Your task to perform on an android device: find photos in the google photos app Image 0: 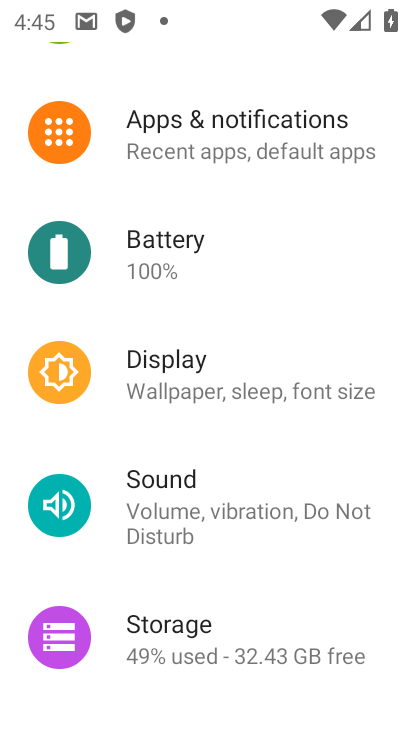
Step 0: press home button
Your task to perform on an android device: find photos in the google photos app Image 1: 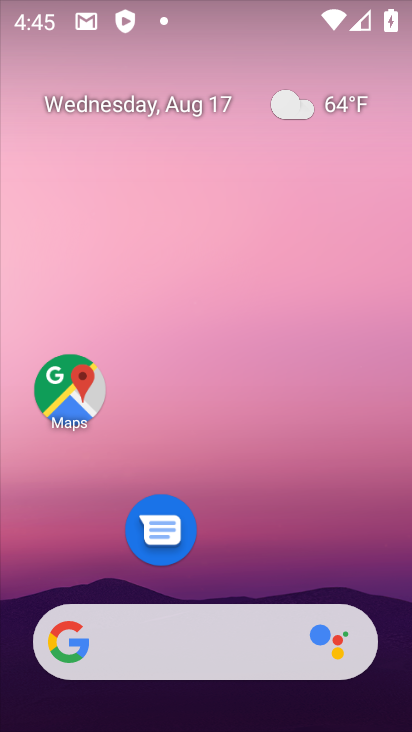
Step 1: drag from (223, 570) to (178, 5)
Your task to perform on an android device: find photos in the google photos app Image 2: 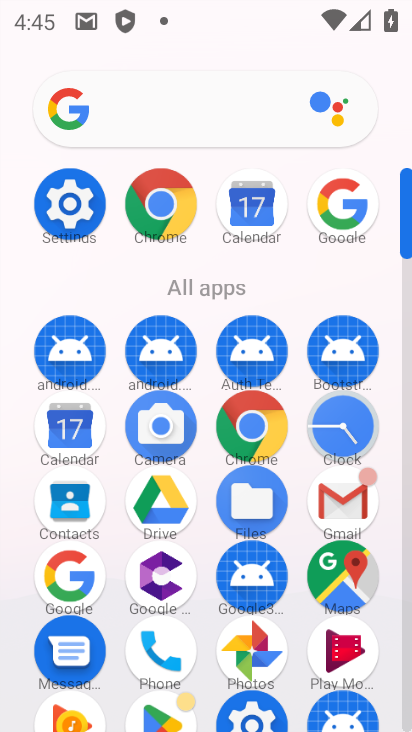
Step 2: click (267, 649)
Your task to perform on an android device: find photos in the google photos app Image 3: 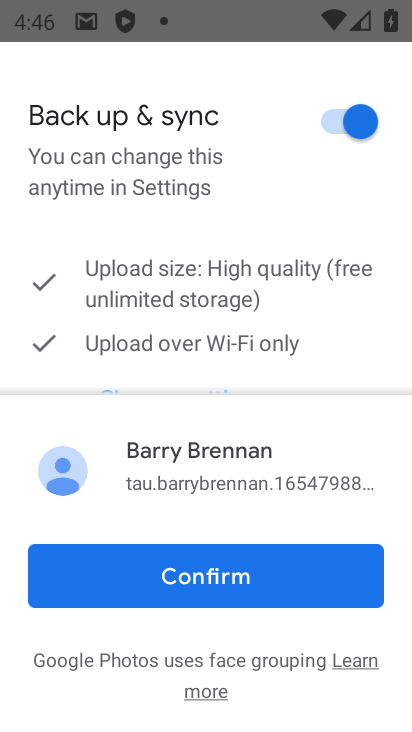
Step 3: click (209, 591)
Your task to perform on an android device: find photos in the google photos app Image 4: 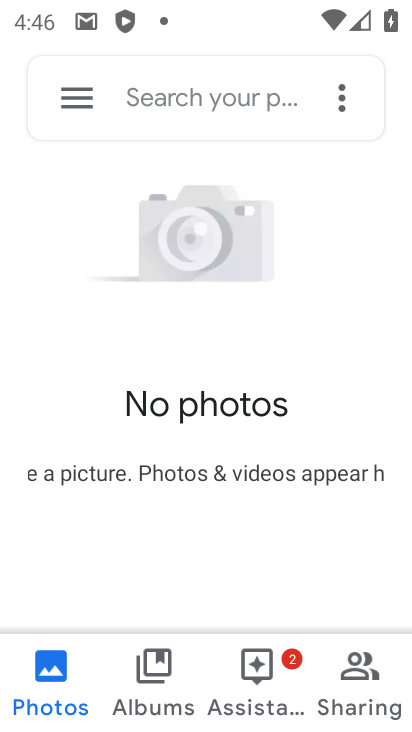
Step 4: task complete